Your task to perform on an android device: Open calendar and show me the third week of next month Image 0: 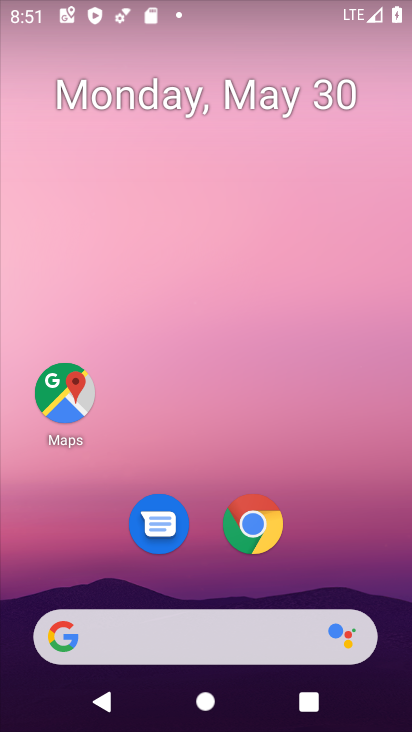
Step 0: drag from (214, 463) to (202, 0)
Your task to perform on an android device: Open calendar and show me the third week of next month Image 1: 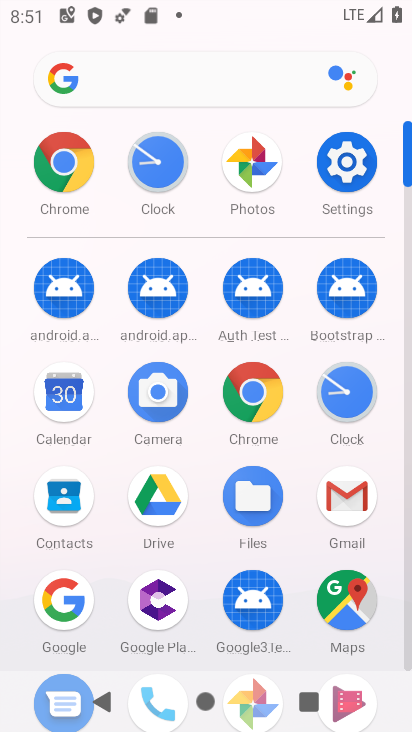
Step 1: click (55, 405)
Your task to perform on an android device: Open calendar and show me the third week of next month Image 2: 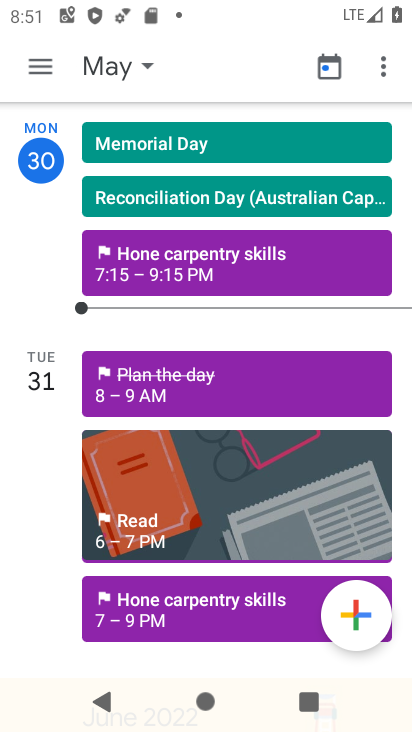
Step 2: click (44, 68)
Your task to perform on an android device: Open calendar and show me the third week of next month Image 3: 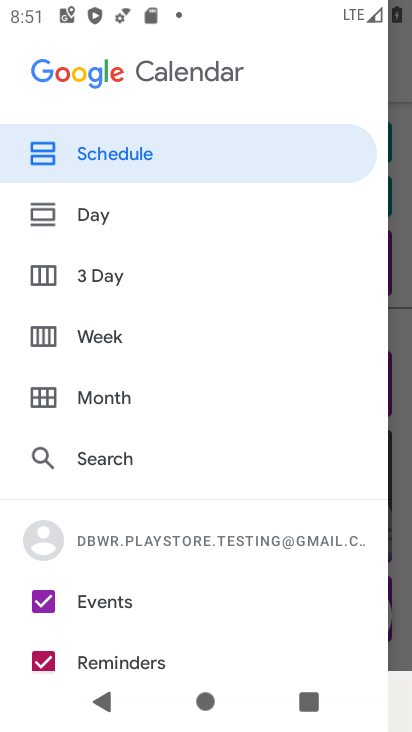
Step 3: click (48, 337)
Your task to perform on an android device: Open calendar and show me the third week of next month Image 4: 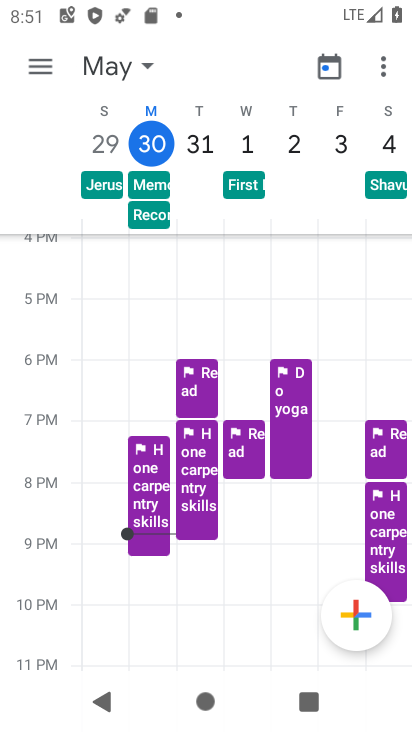
Step 4: task complete